Your task to perform on an android device: What's the weather going to be tomorrow? Image 0: 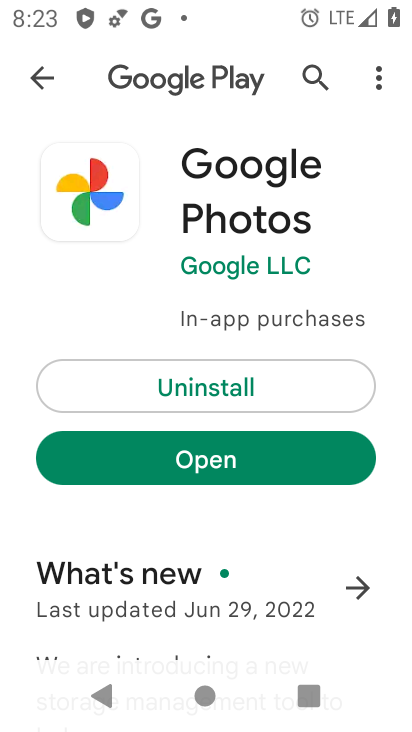
Step 0: press home button
Your task to perform on an android device: What's the weather going to be tomorrow? Image 1: 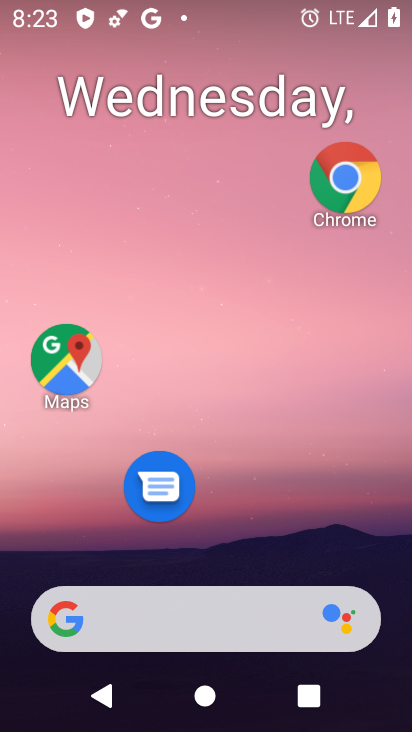
Step 1: drag from (197, 619) to (277, 213)
Your task to perform on an android device: What's the weather going to be tomorrow? Image 2: 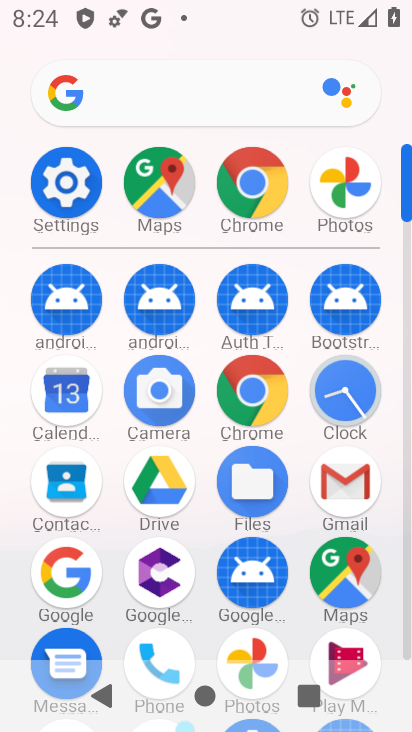
Step 2: drag from (212, 499) to (259, 240)
Your task to perform on an android device: What's the weather going to be tomorrow? Image 3: 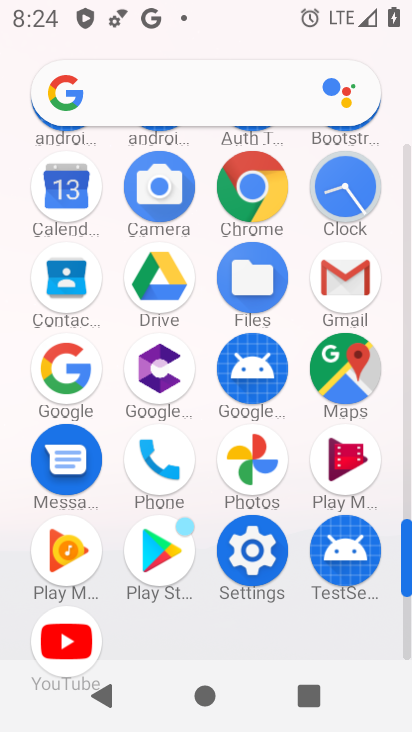
Step 3: click (73, 377)
Your task to perform on an android device: What's the weather going to be tomorrow? Image 4: 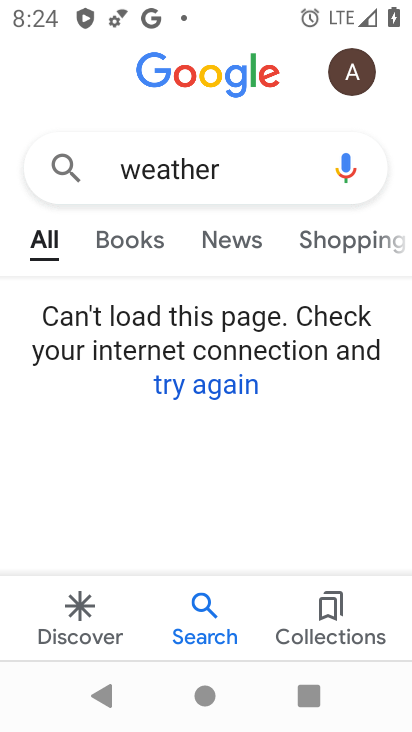
Step 4: click (244, 170)
Your task to perform on an android device: What's the weather going to be tomorrow? Image 5: 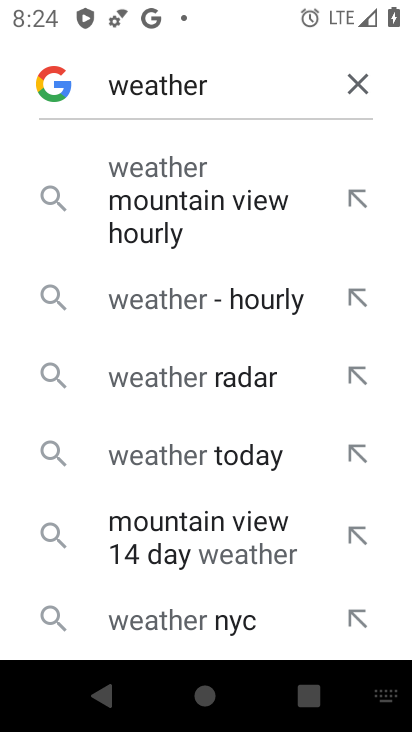
Step 5: type " tommorrow"
Your task to perform on an android device: What's the weather going to be tomorrow? Image 6: 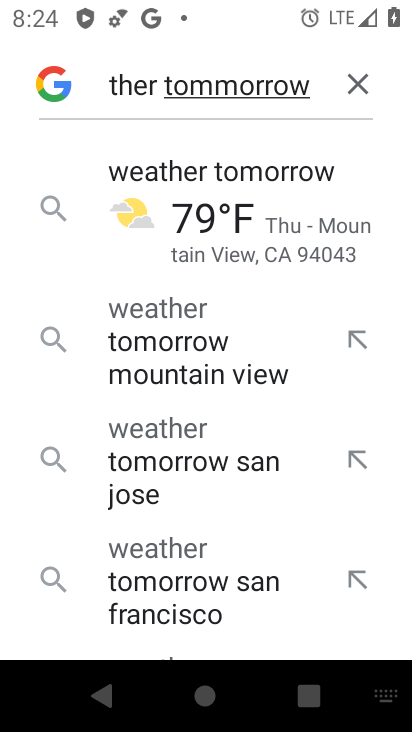
Step 6: click (278, 223)
Your task to perform on an android device: What's the weather going to be tomorrow? Image 7: 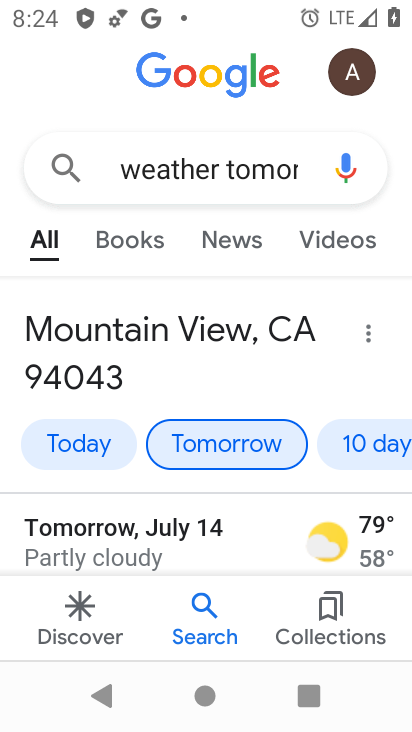
Step 7: task complete